Your task to perform on an android device: toggle improve location accuracy Image 0: 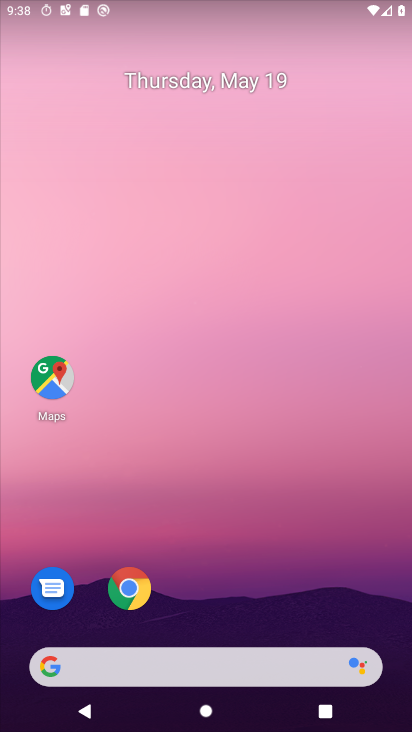
Step 0: press home button
Your task to perform on an android device: toggle improve location accuracy Image 1: 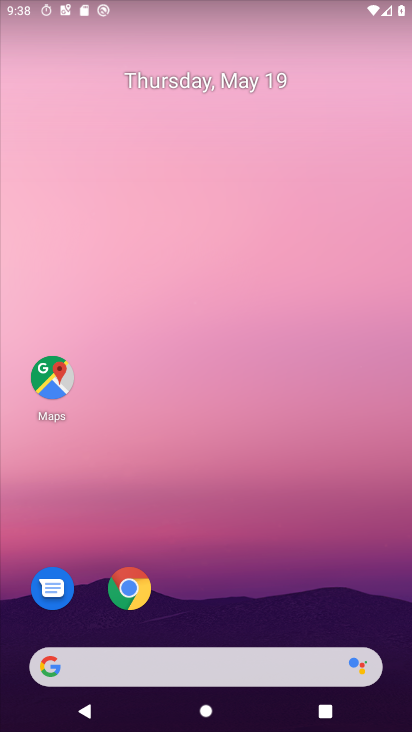
Step 1: drag from (144, 675) to (299, 131)
Your task to perform on an android device: toggle improve location accuracy Image 2: 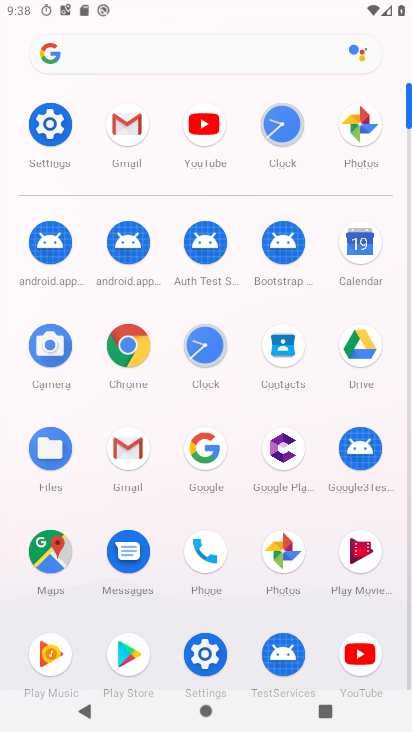
Step 2: click (53, 123)
Your task to perform on an android device: toggle improve location accuracy Image 3: 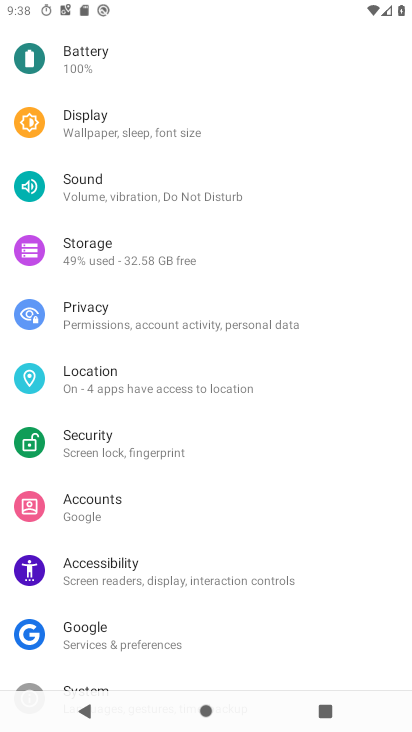
Step 3: click (126, 377)
Your task to perform on an android device: toggle improve location accuracy Image 4: 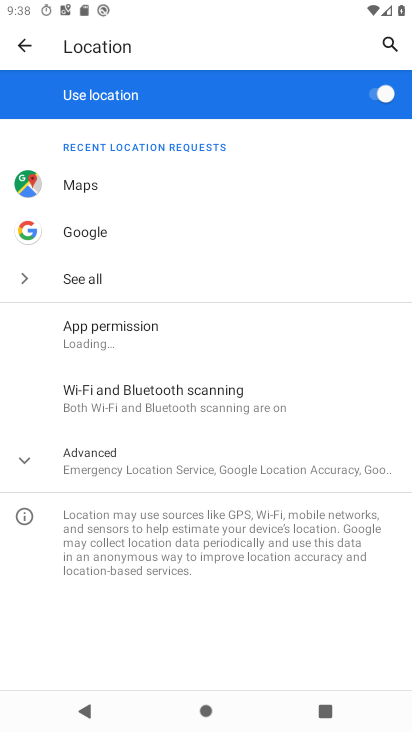
Step 4: click (117, 460)
Your task to perform on an android device: toggle improve location accuracy Image 5: 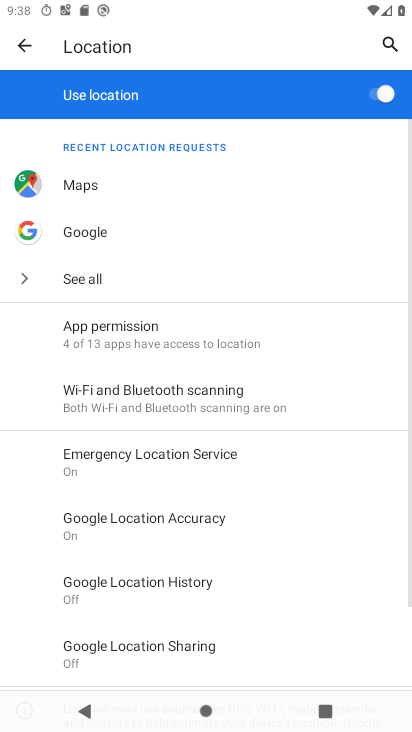
Step 5: click (104, 526)
Your task to perform on an android device: toggle improve location accuracy Image 6: 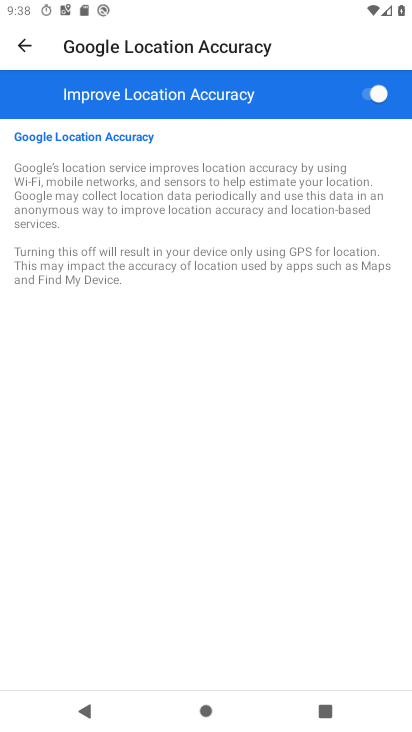
Step 6: click (369, 96)
Your task to perform on an android device: toggle improve location accuracy Image 7: 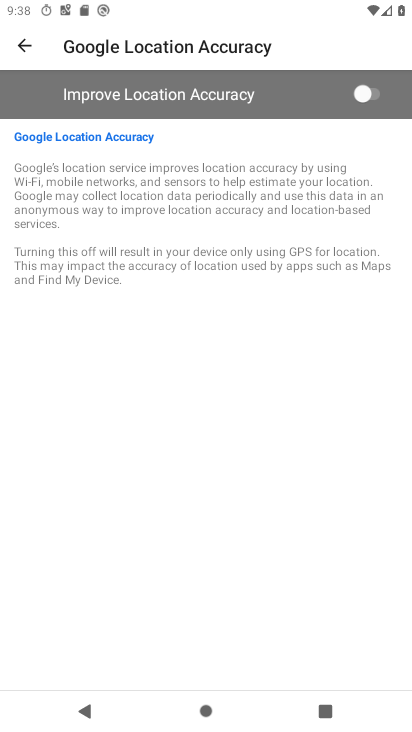
Step 7: task complete